Your task to perform on an android device: Go to Google maps Image 0: 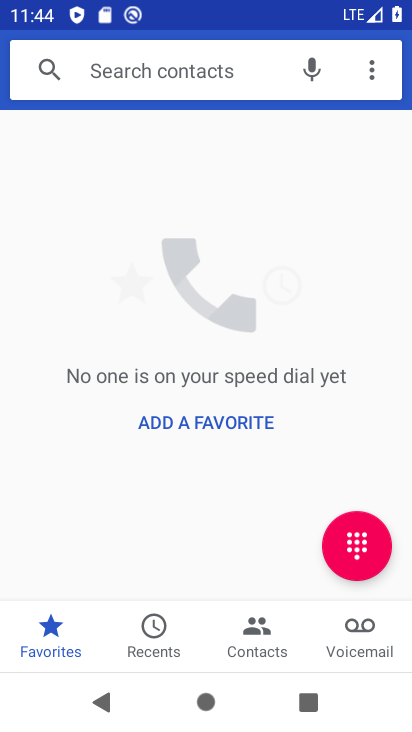
Step 0: press home button
Your task to perform on an android device: Go to Google maps Image 1: 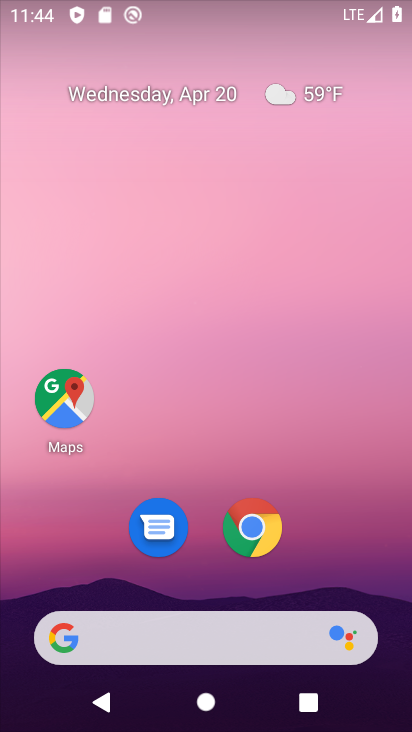
Step 1: drag from (365, 543) to (383, 110)
Your task to perform on an android device: Go to Google maps Image 2: 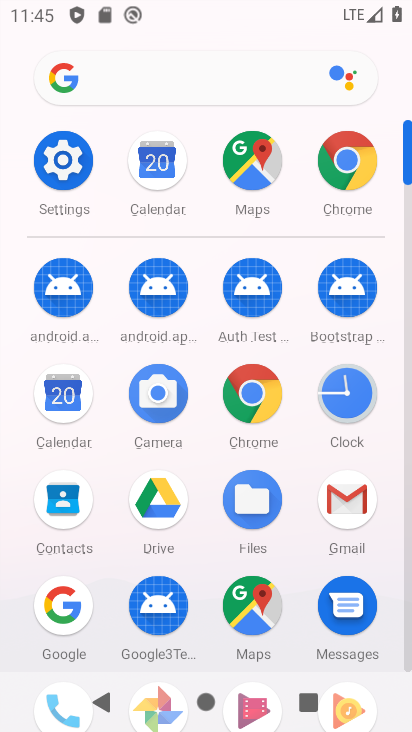
Step 2: click (251, 602)
Your task to perform on an android device: Go to Google maps Image 3: 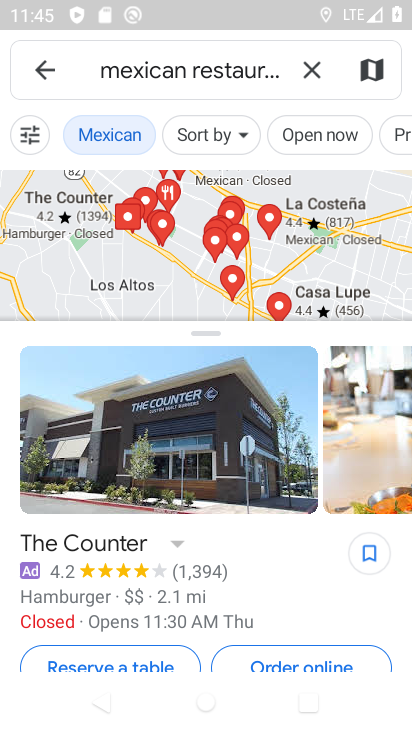
Step 3: task complete